Your task to perform on an android device: Open maps Image 0: 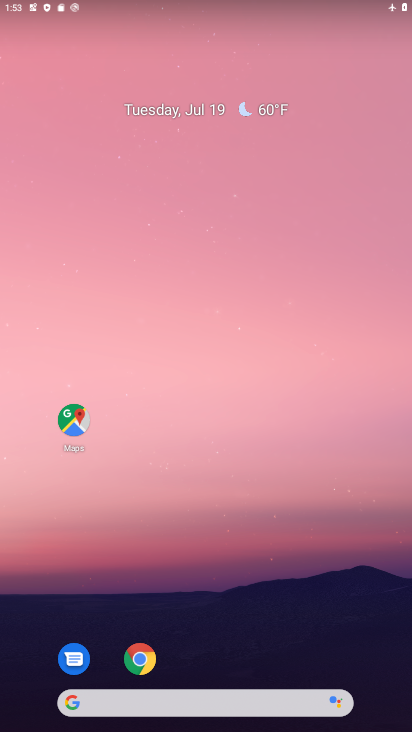
Step 0: click (63, 433)
Your task to perform on an android device: Open maps Image 1: 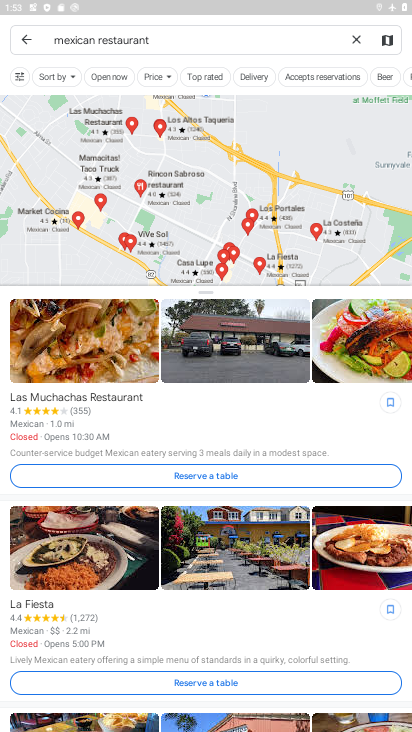
Step 1: task complete